Your task to perform on an android device: Go to ESPN.com Image 0: 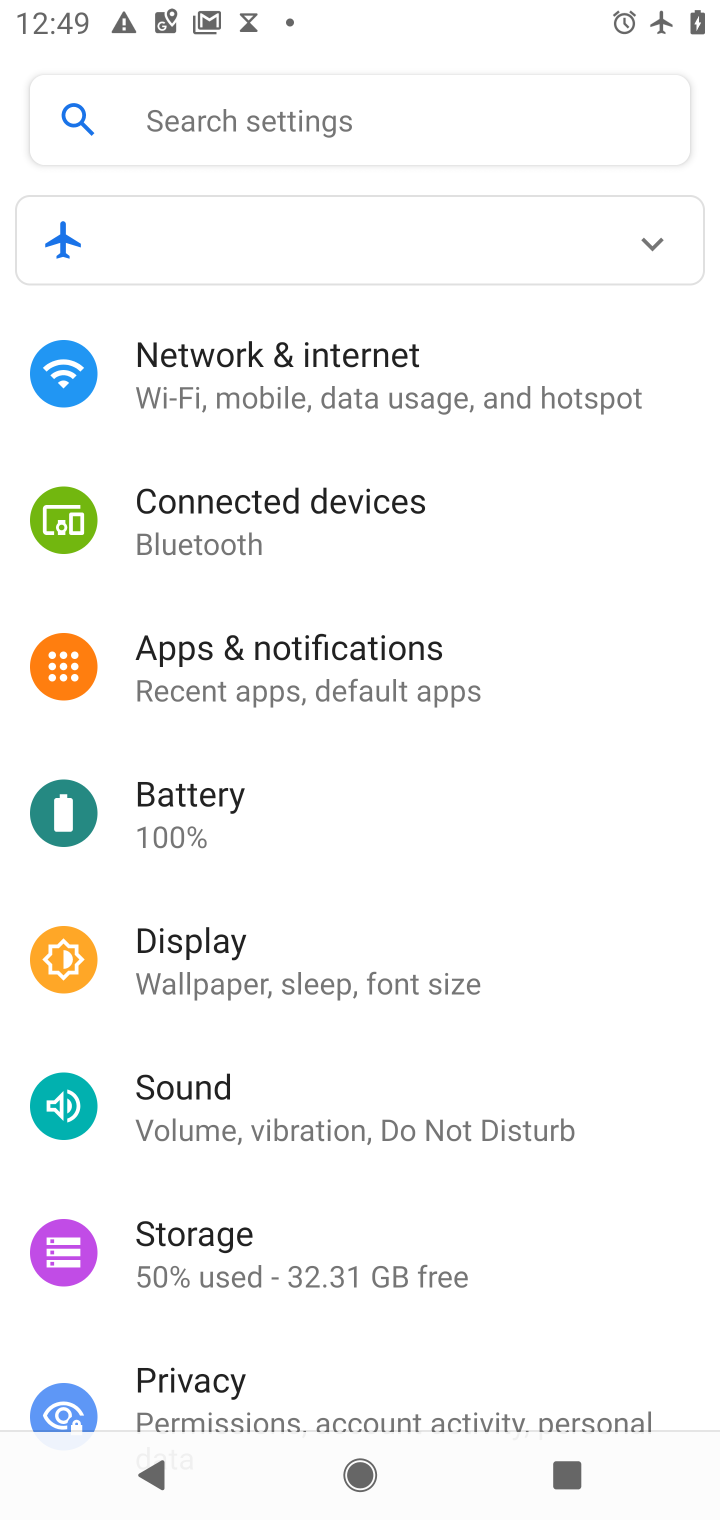
Step 0: press home button
Your task to perform on an android device: Go to ESPN.com Image 1: 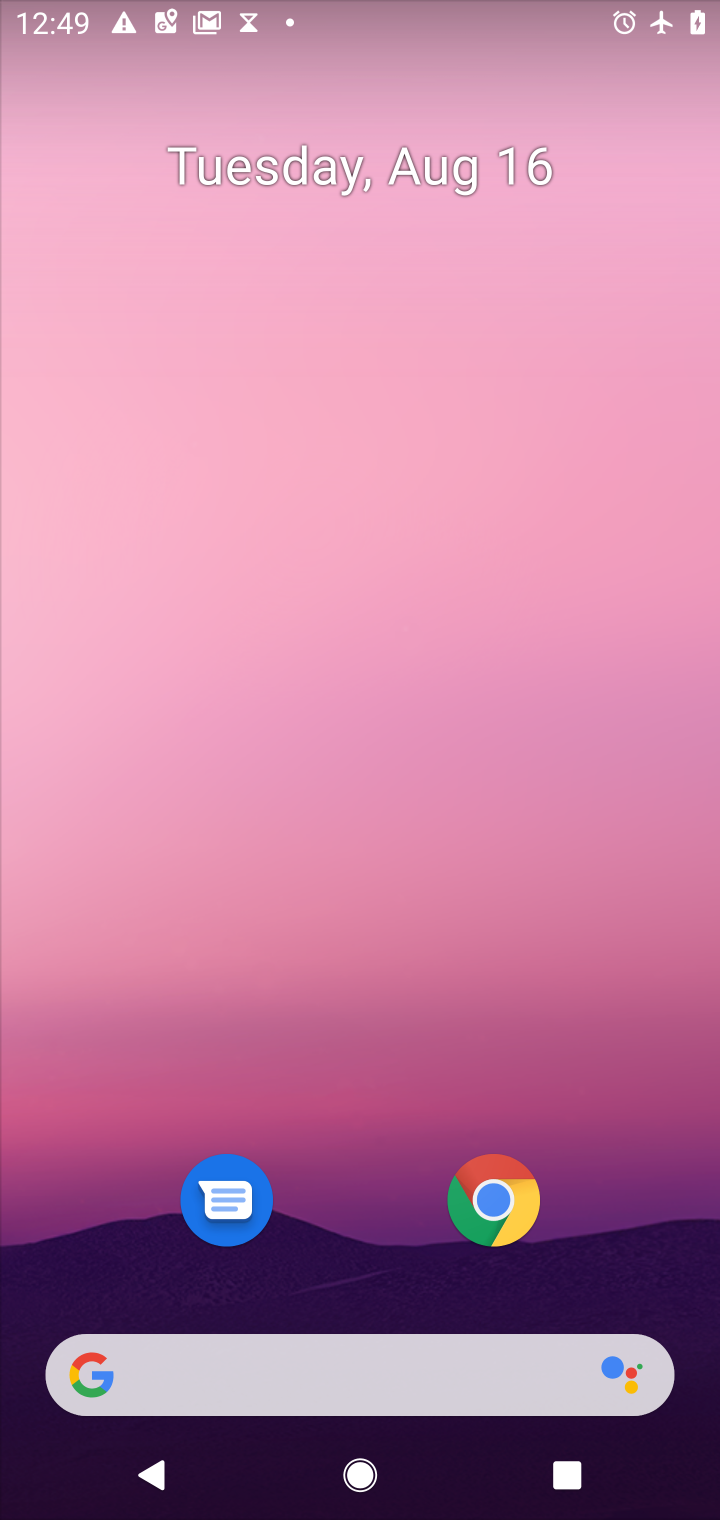
Step 1: click (497, 1185)
Your task to perform on an android device: Go to ESPN.com Image 2: 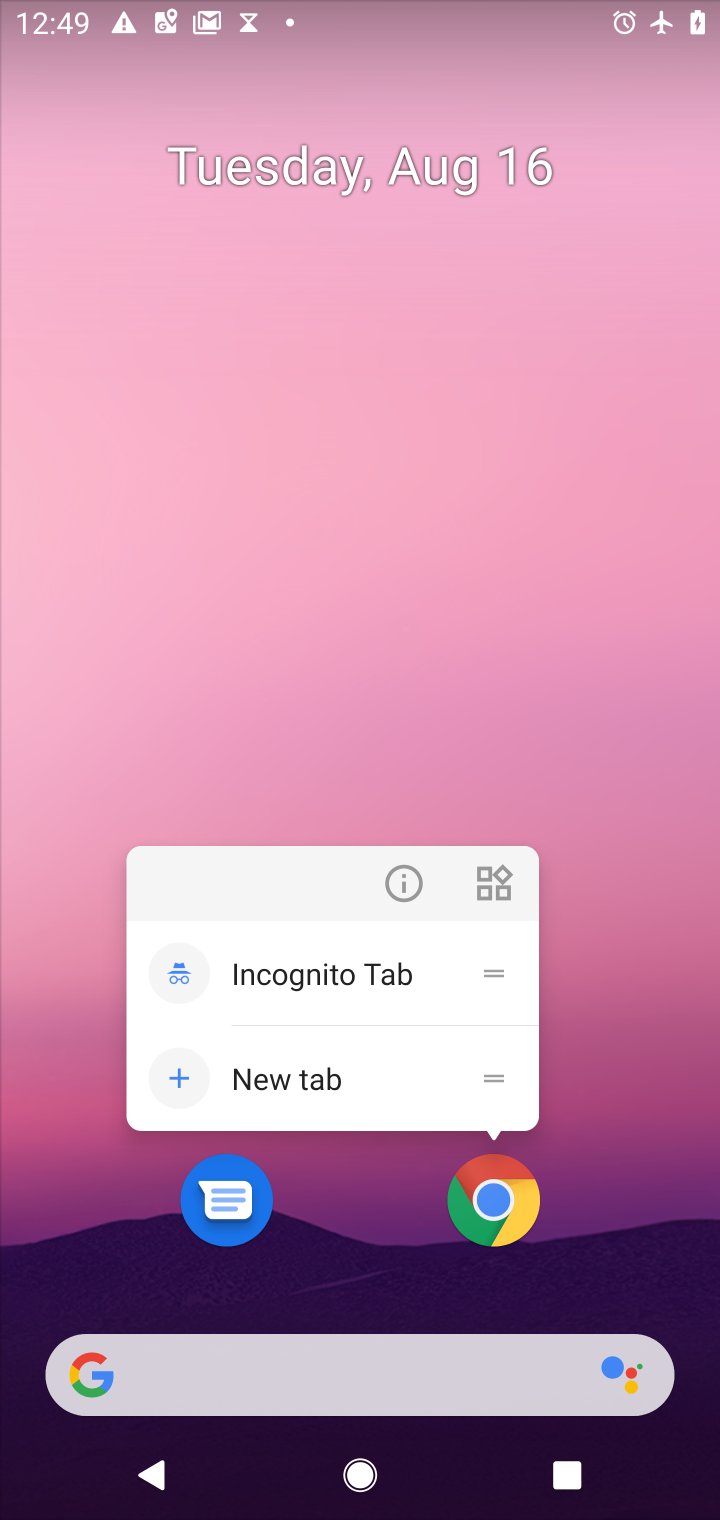
Step 2: click (497, 1185)
Your task to perform on an android device: Go to ESPN.com Image 3: 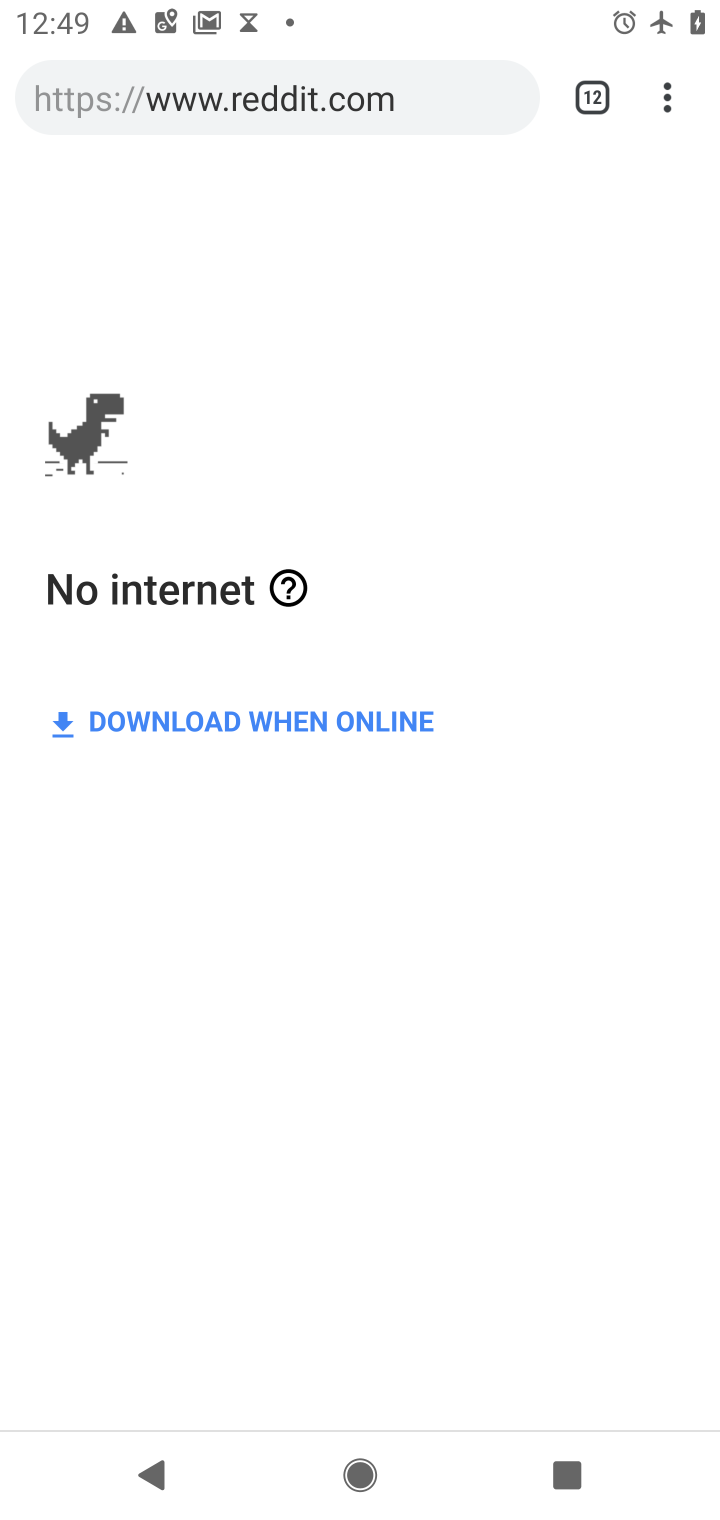
Step 3: click (590, 69)
Your task to perform on an android device: Go to ESPN.com Image 4: 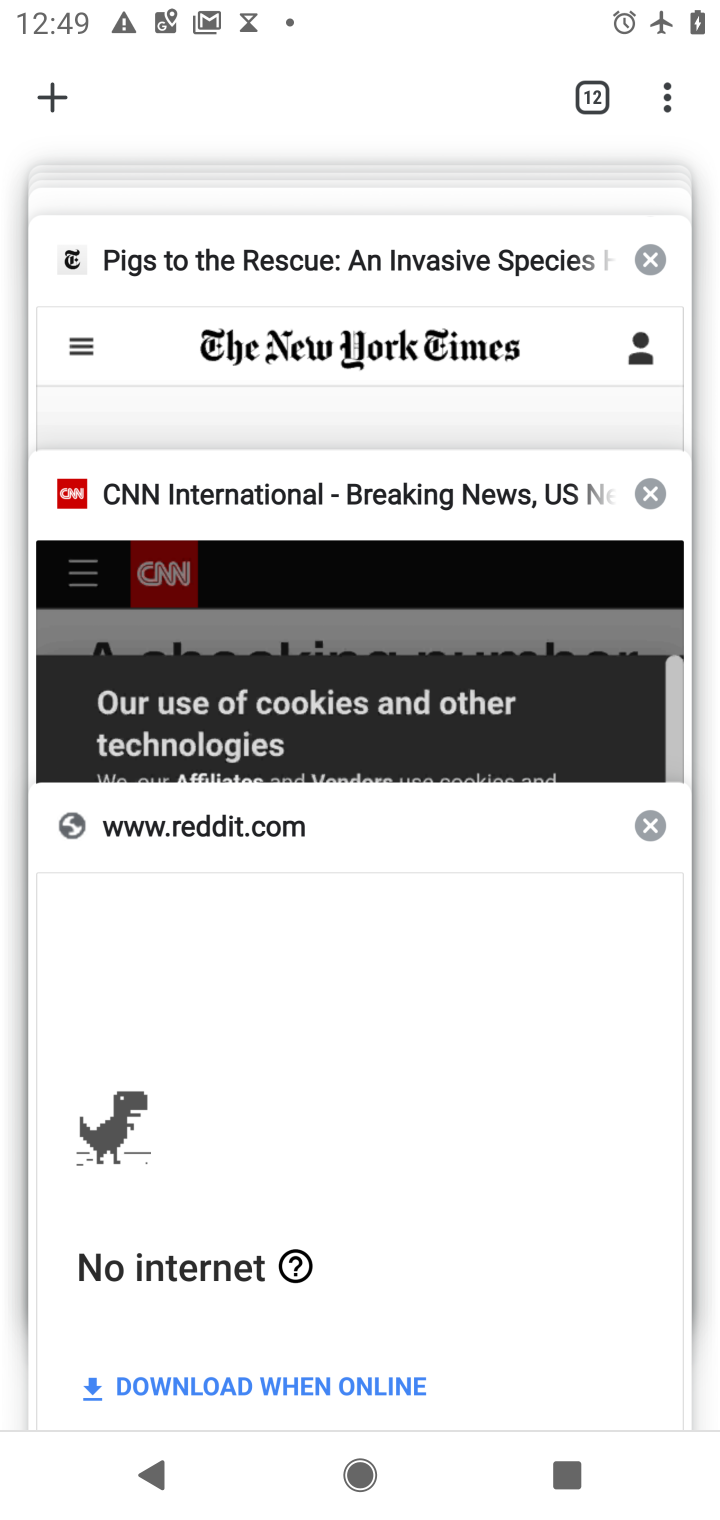
Step 4: click (54, 85)
Your task to perform on an android device: Go to ESPN.com Image 5: 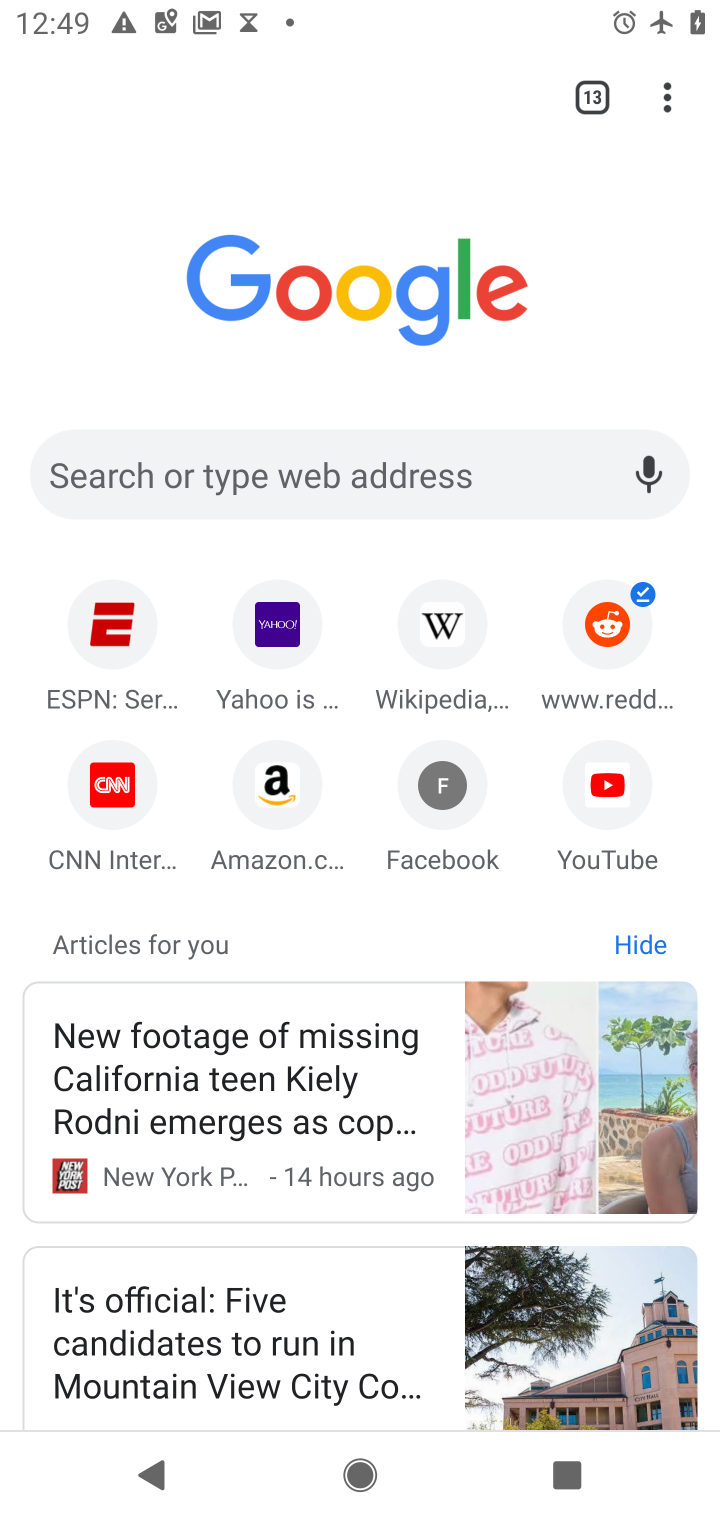
Step 5: click (219, 485)
Your task to perform on an android device: Go to ESPN.com Image 6: 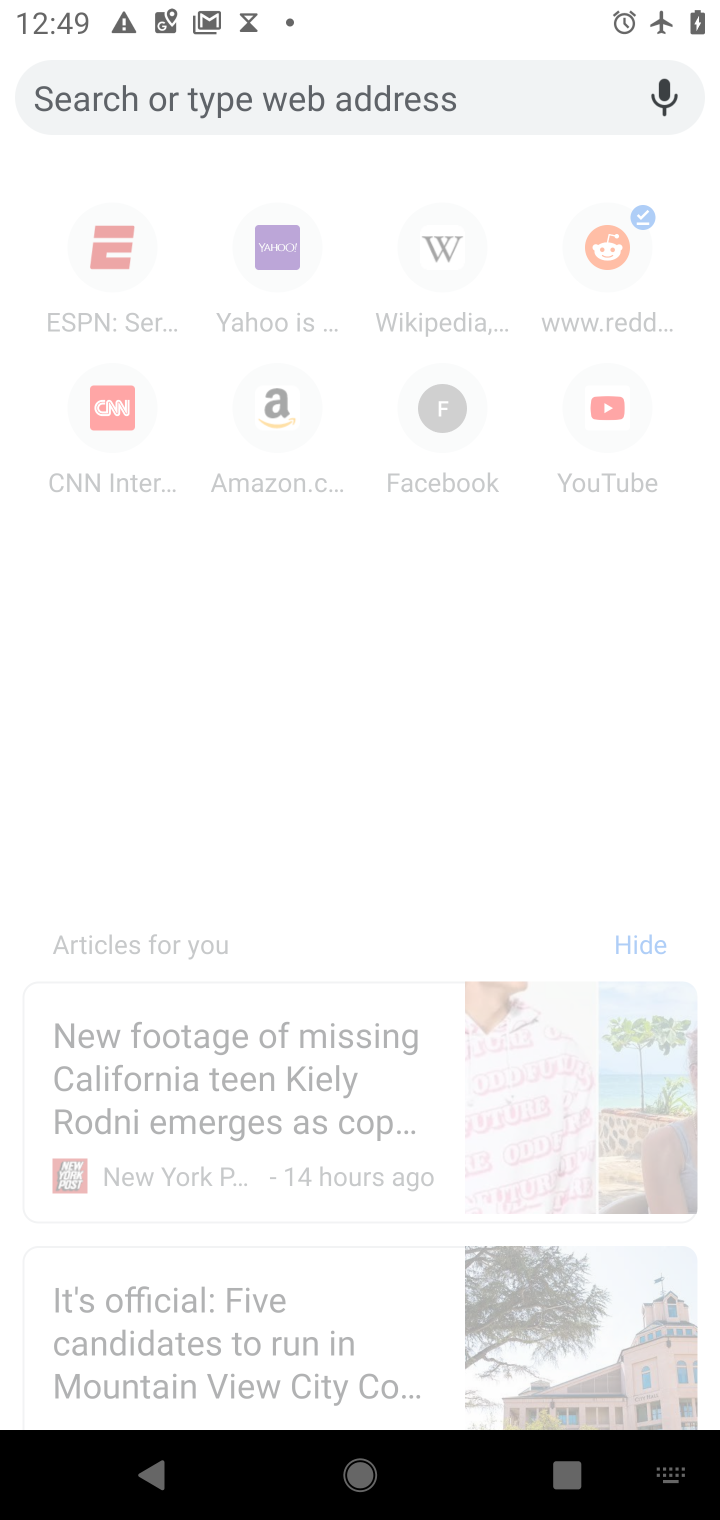
Step 6: type "ESPN.com"
Your task to perform on an android device: Go to ESPN.com Image 7: 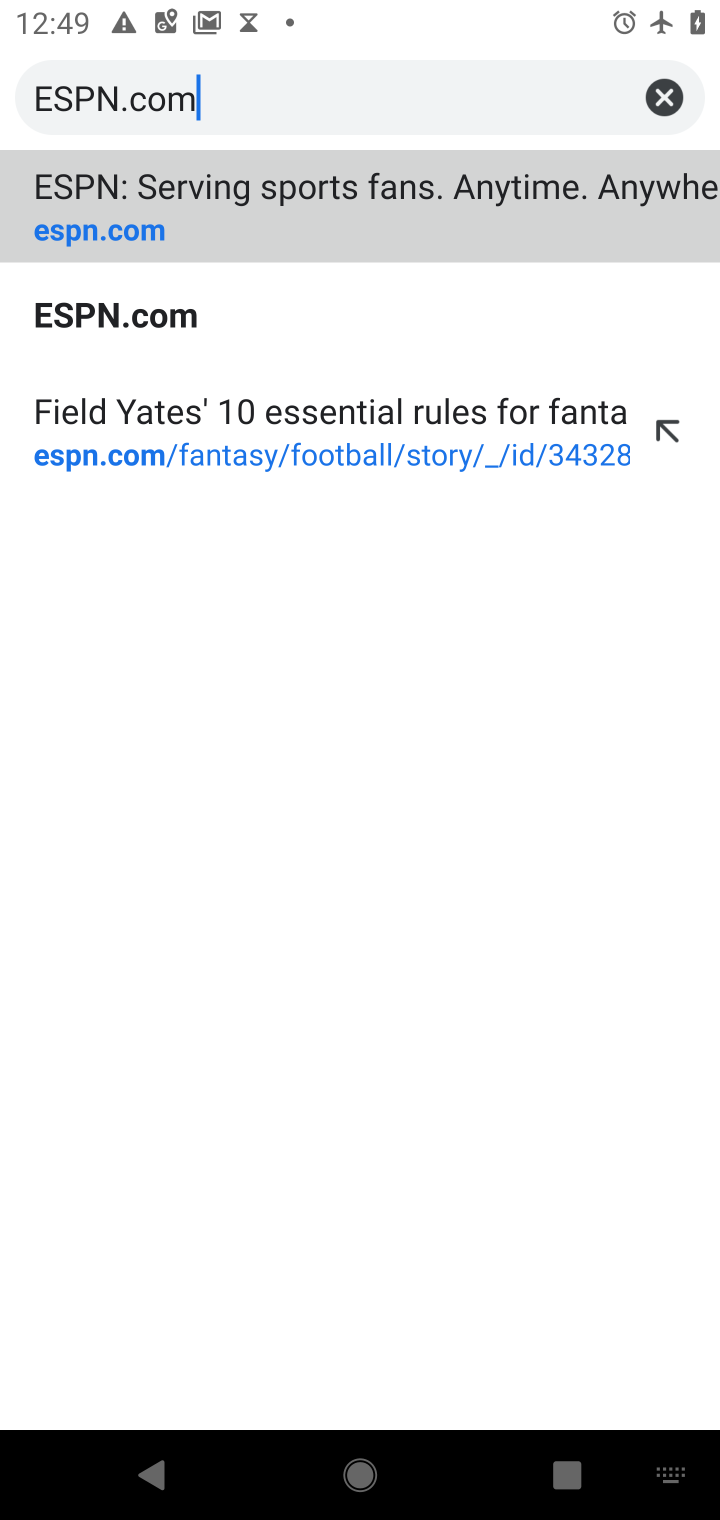
Step 7: click (385, 104)
Your task to perform on an android device: Go to ESPN.com Image 8: 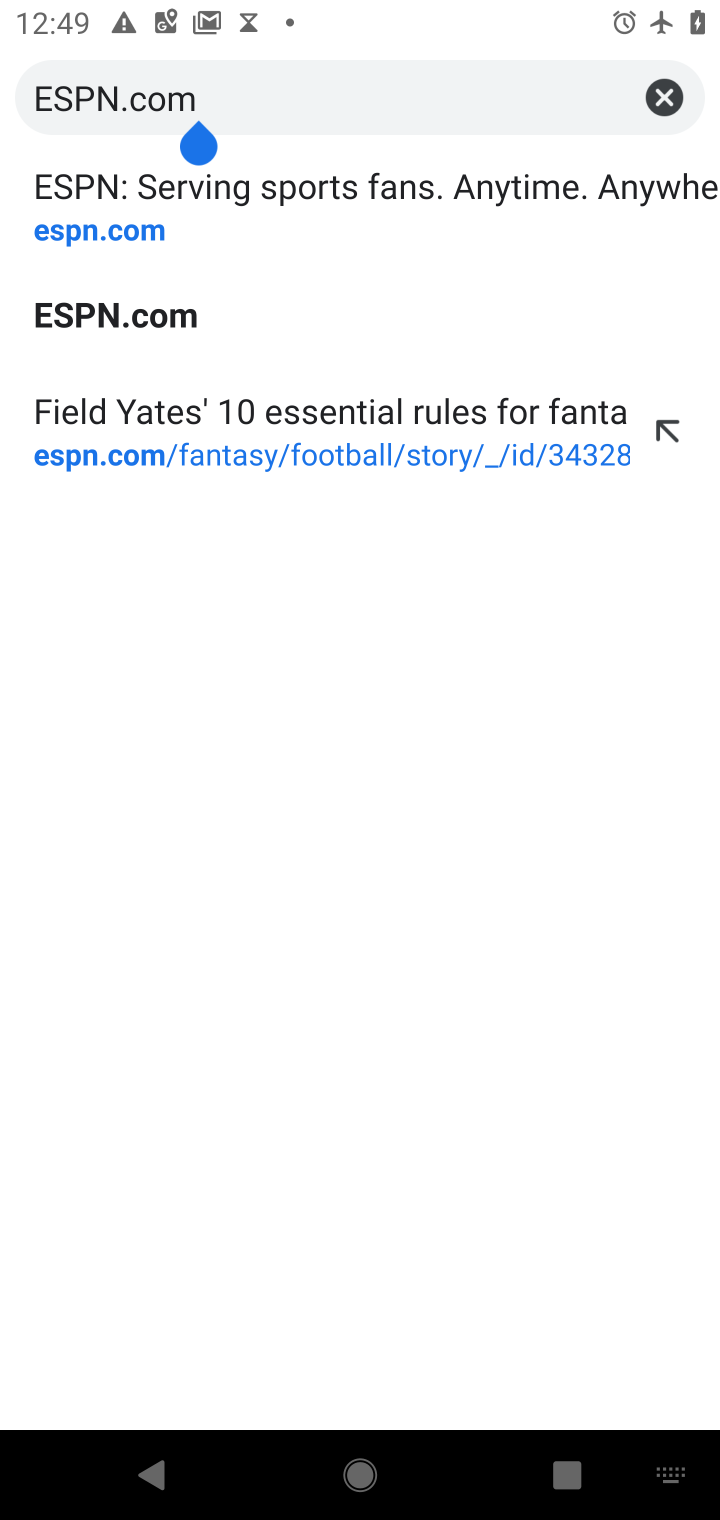
Step 8: click (305, 217)
Your task to perform on an android device: Go to ESPN.com Image 9: 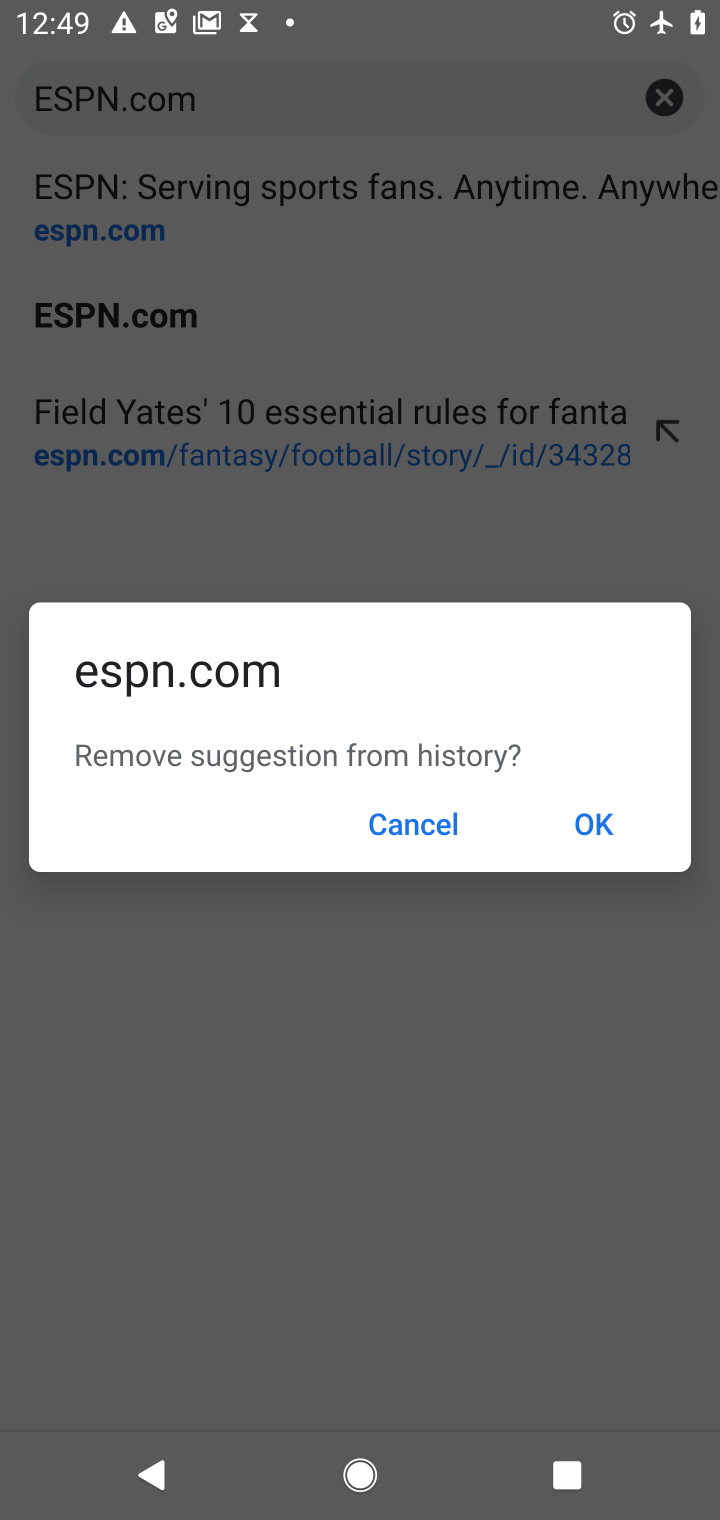
Step 9: click (598, 827)
Your task to perform on an android device: Go to ESPN.com Image 10: 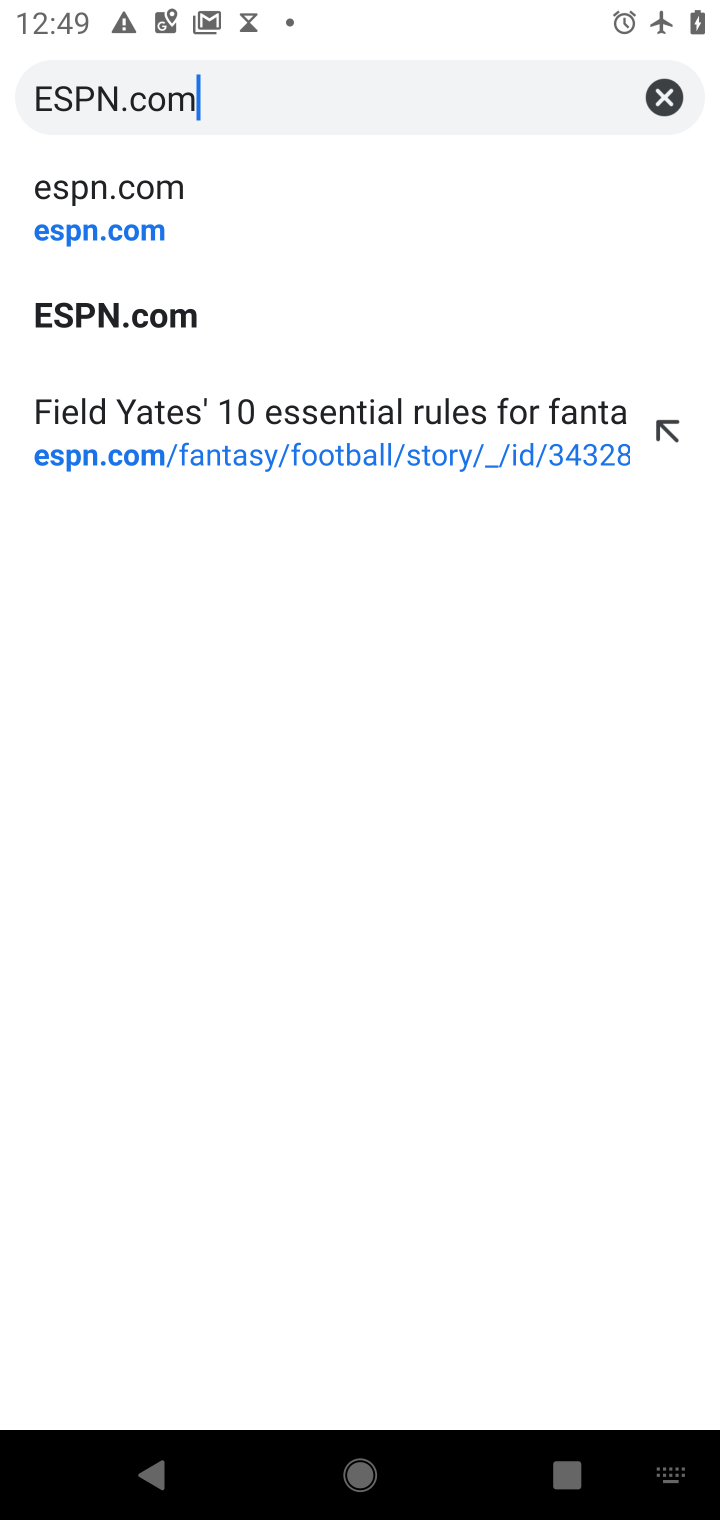
Step 10: click (146, 207)
Your task to perform on an android device: Go to ESPN.com Image 11: 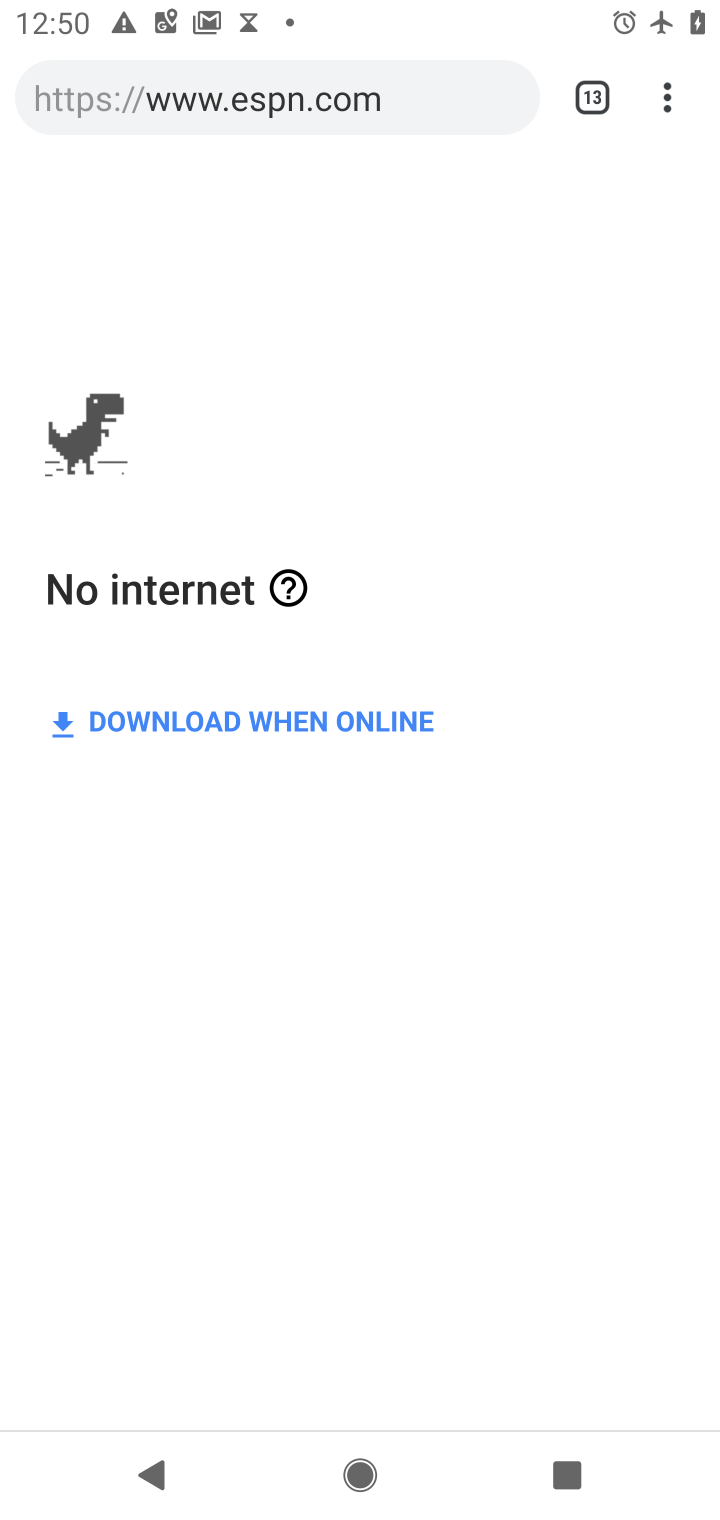
Step 11: task complete